Your task to perform on an android device: make emails show in primary in the gmail app Image 0: 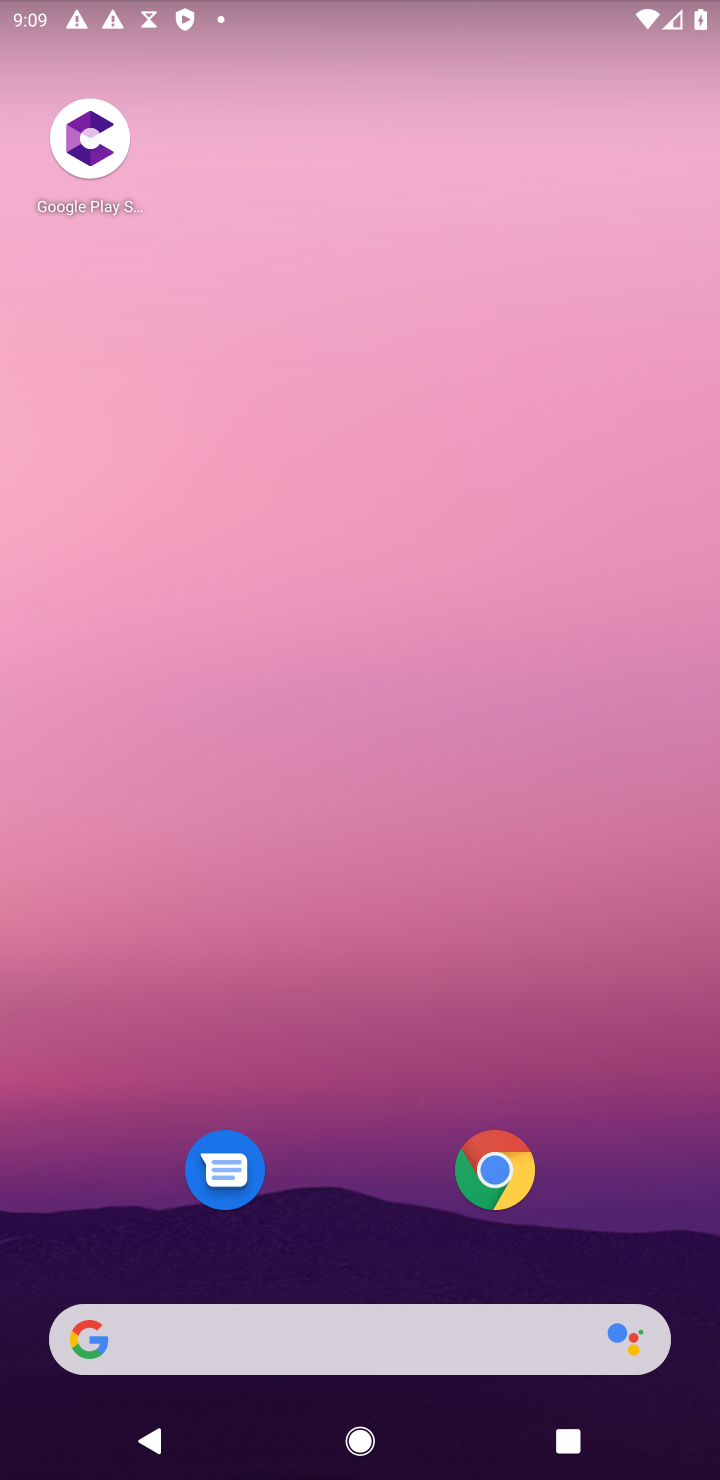
Step 0: drag from (383, 1232) to (337, 223)
Your task to perform on an android device: make emails show in primary in the gmail app Image 1: 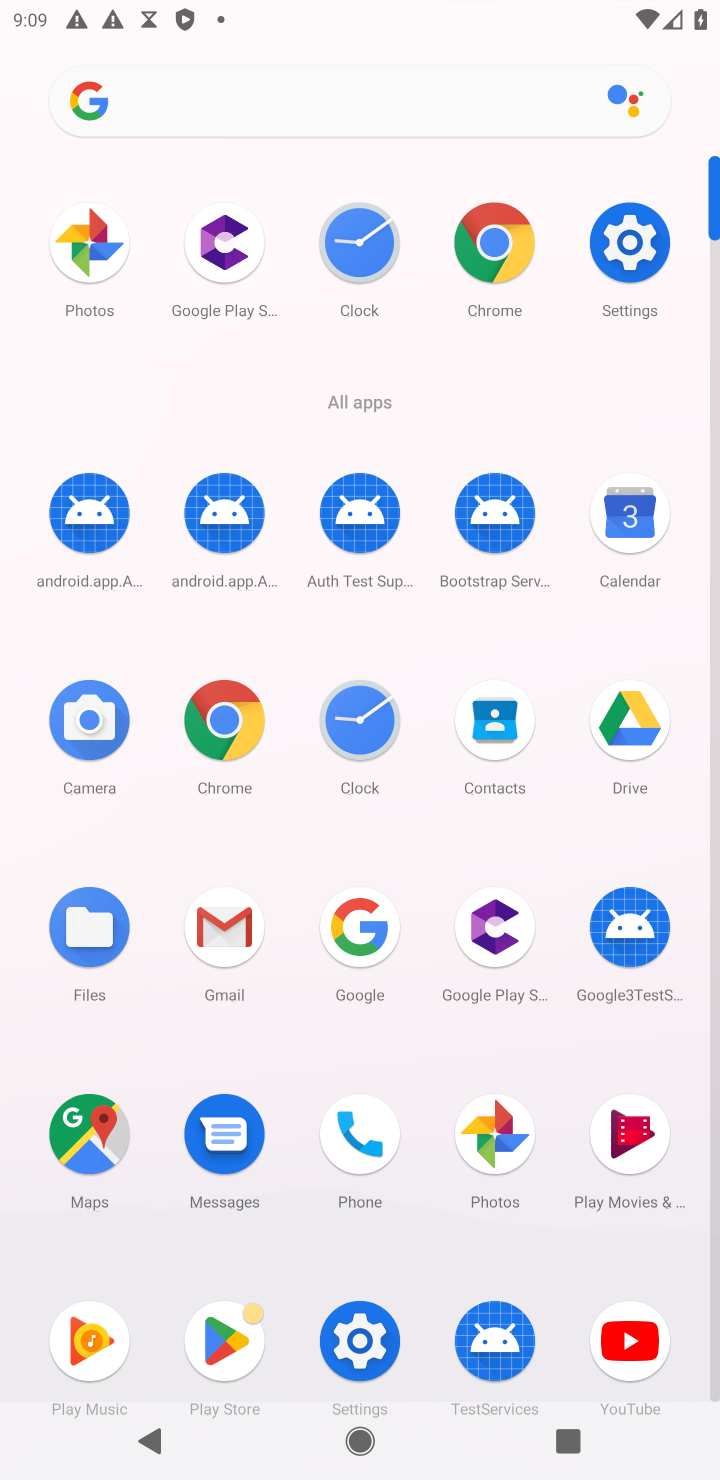
Step 1: click (234, 948)
Your task to perform on an android device: make emails show in primary in the gmail app Image 2: 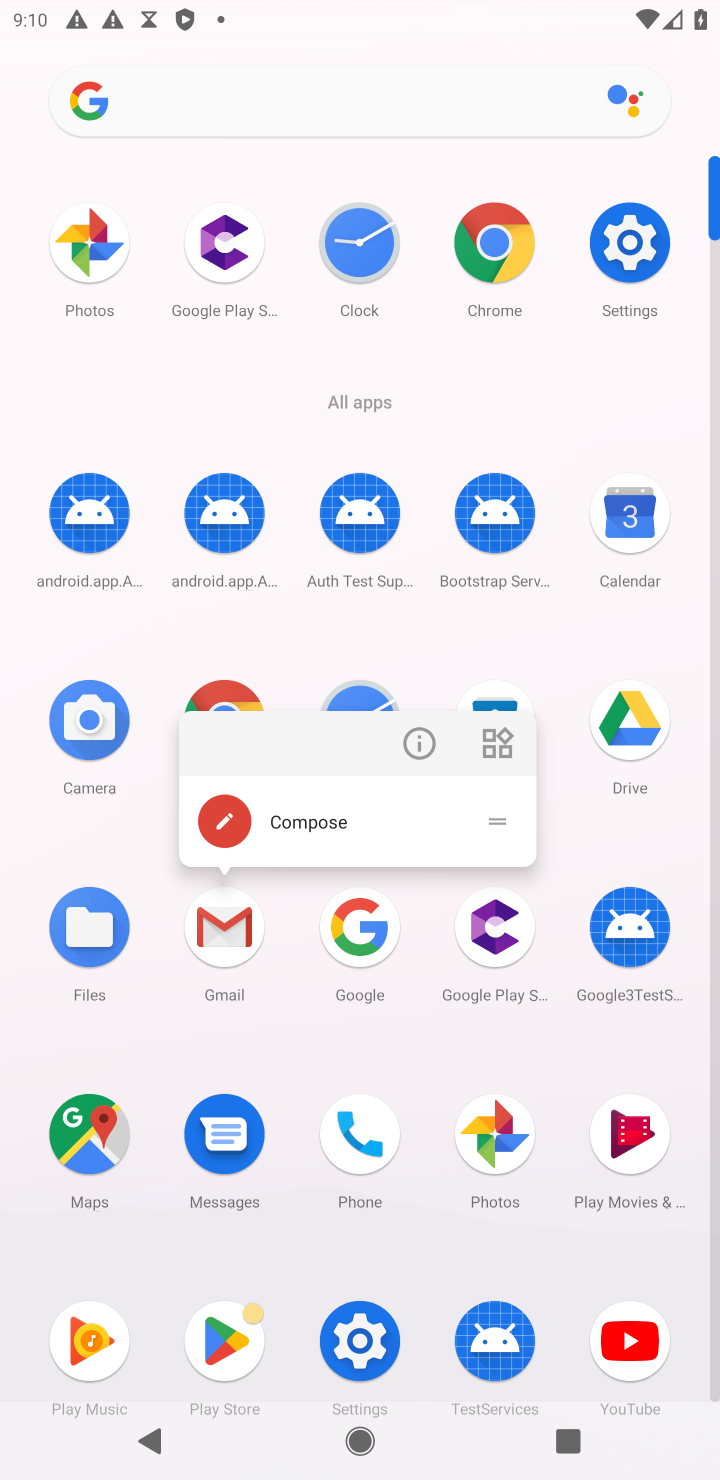
Step 2: click (234, 948)
Your task to perform on an android device: make emails show in primary in the gmail app Image 3: 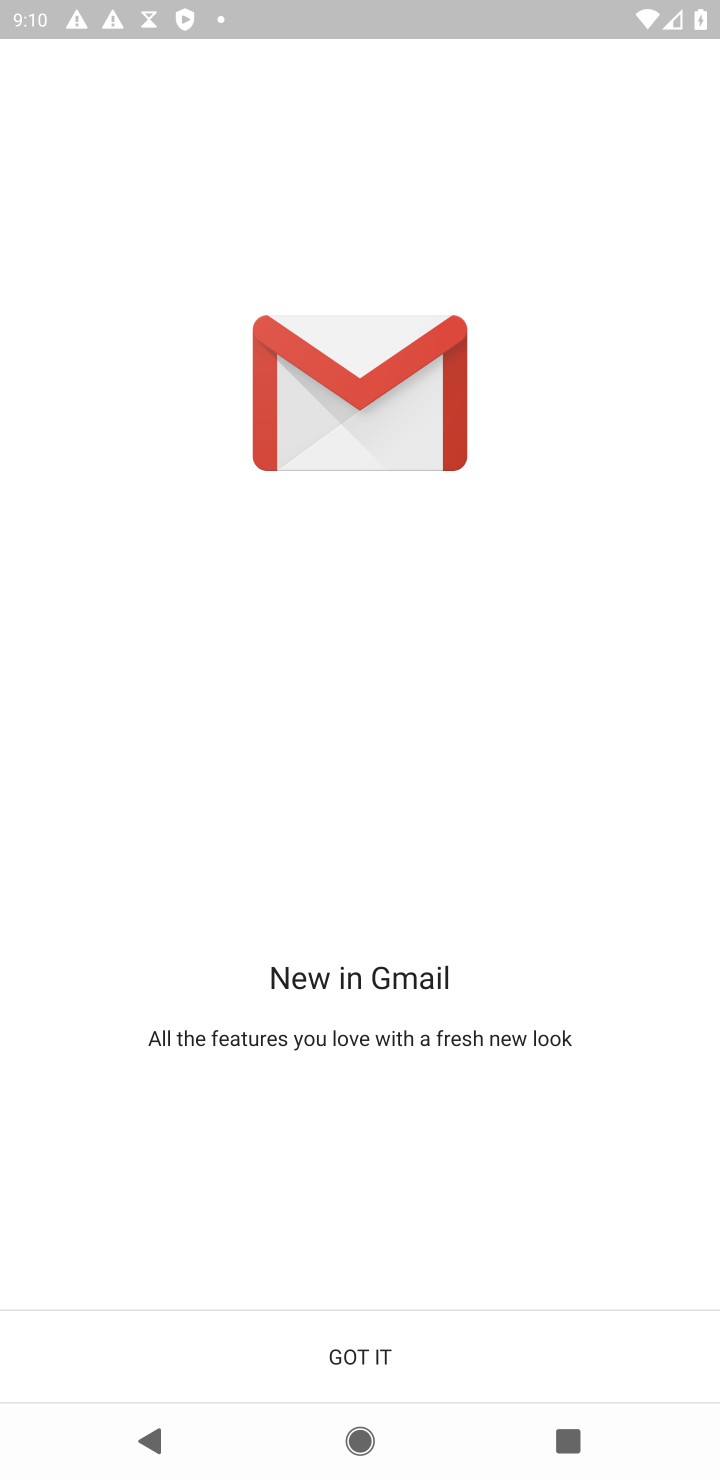
Step 3: click (391, 1382)
Your task to perform on an android device: make emails show in primary in the gmail app Image 4: 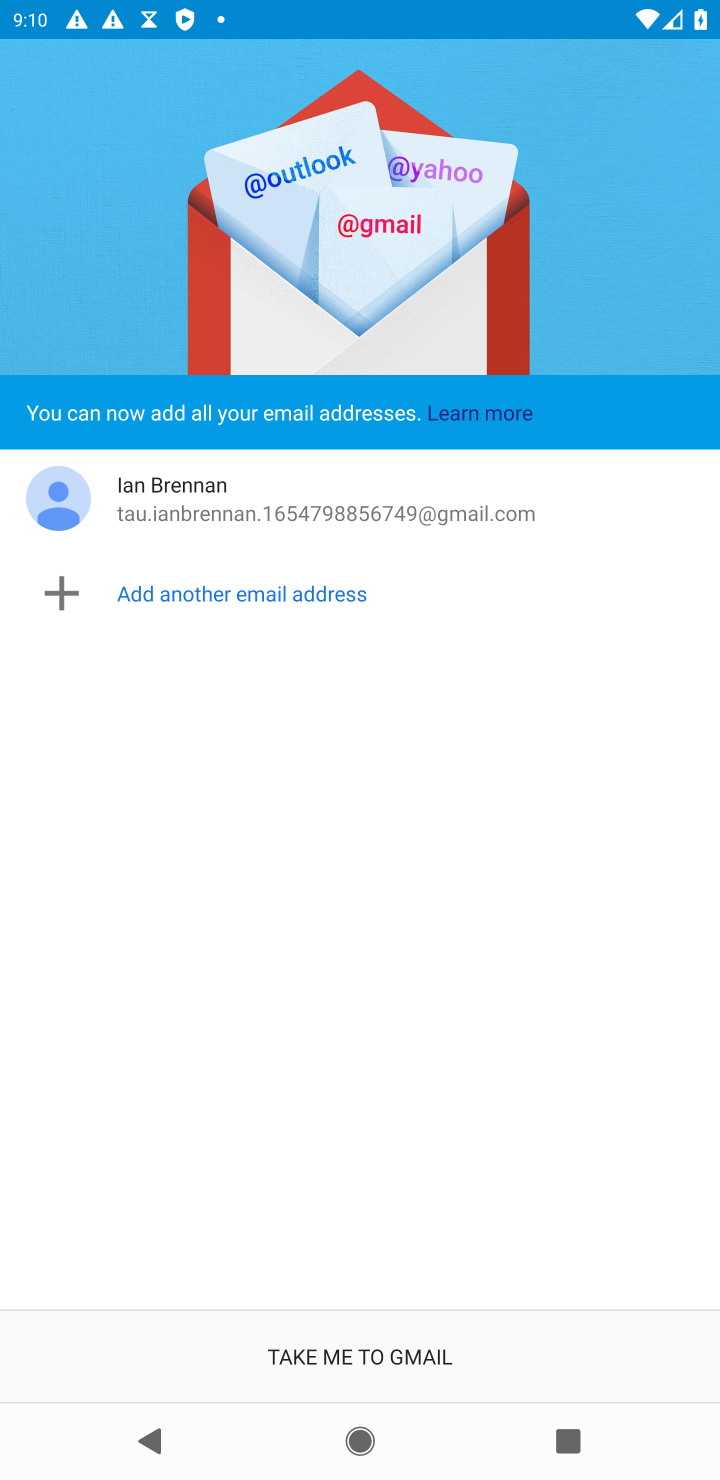
Step 4: click (394, 1383)
Your task to perform on an android device: make emails show in primary in the gmail app Image 5: 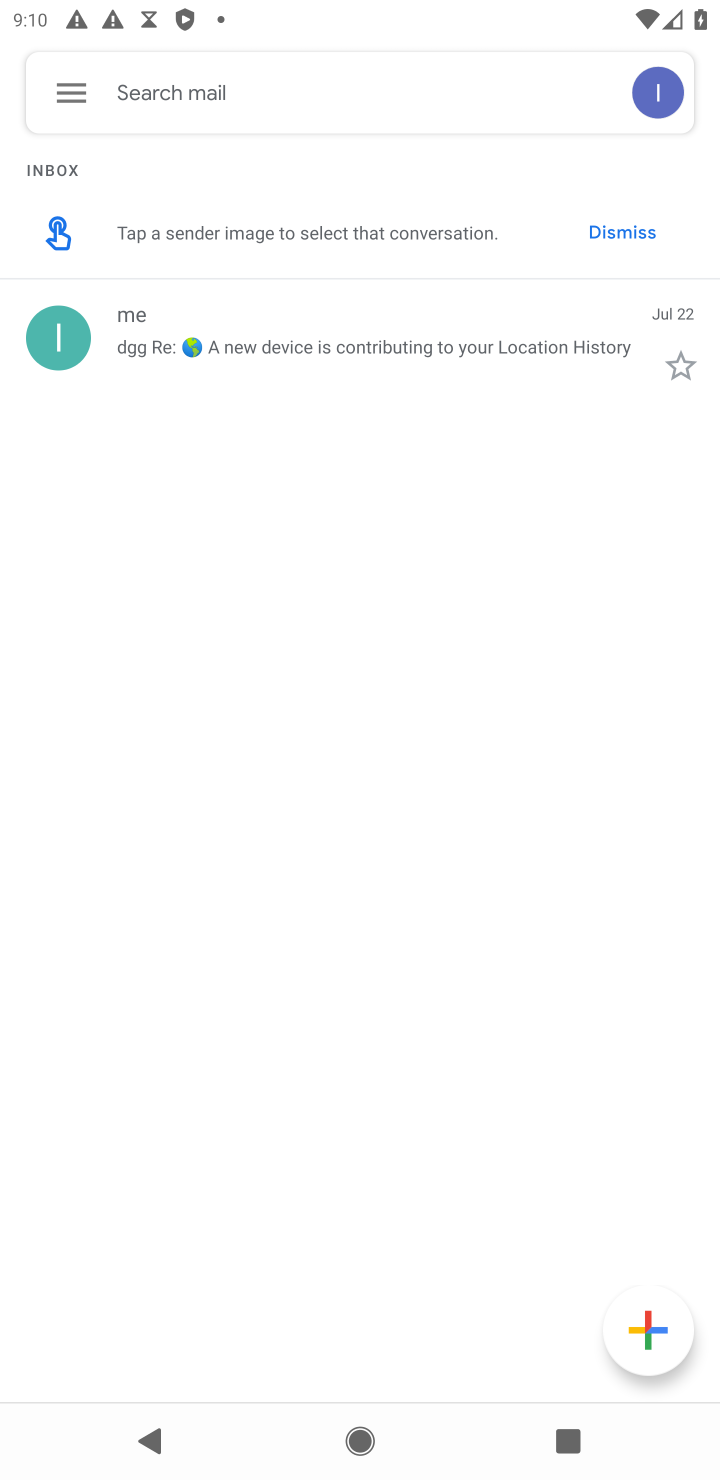
Step 5: click (60, 111)
Your task to perform on an android device: make emails show in primary in the gmail app Image 6: 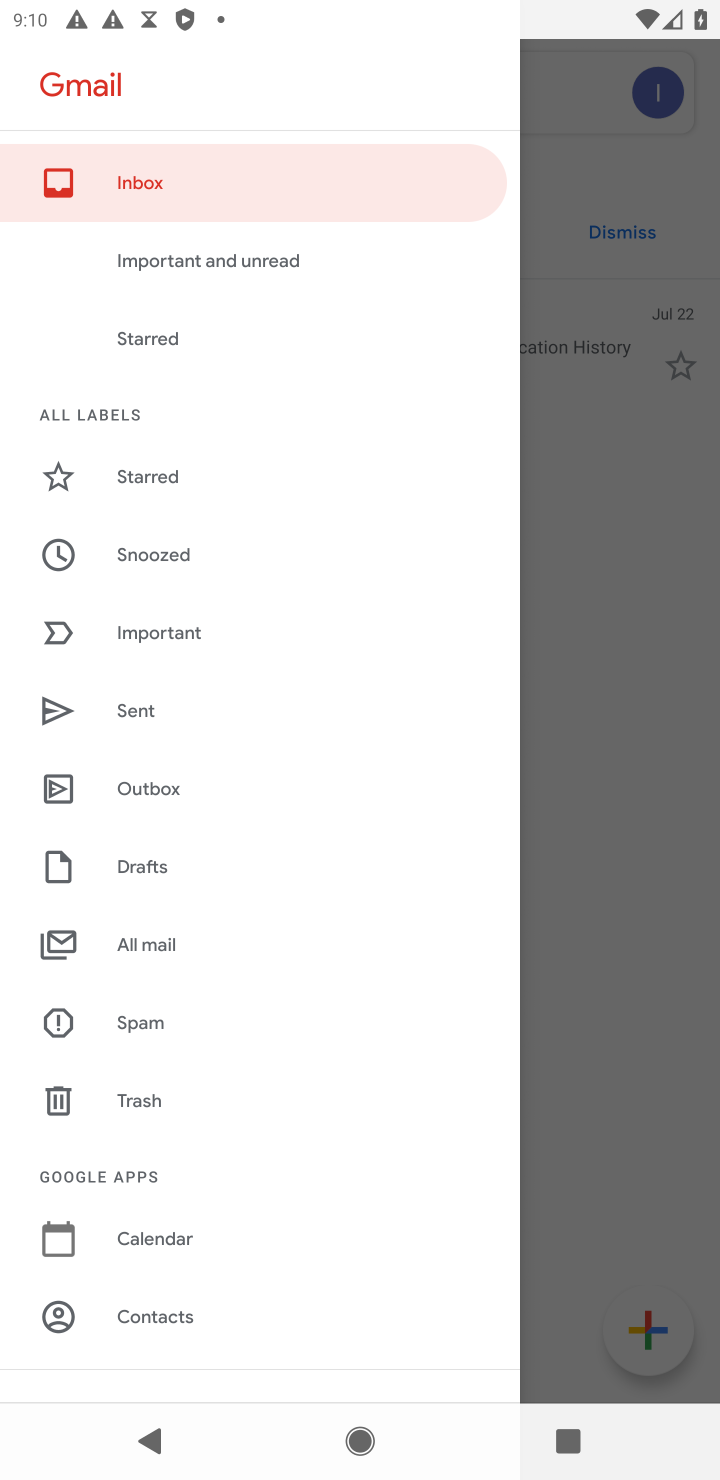
Step 6: drag from (296, 1316) to (230, 679)
Your task to perform on an android device: make emails show in primary in the gmail app Image 7: 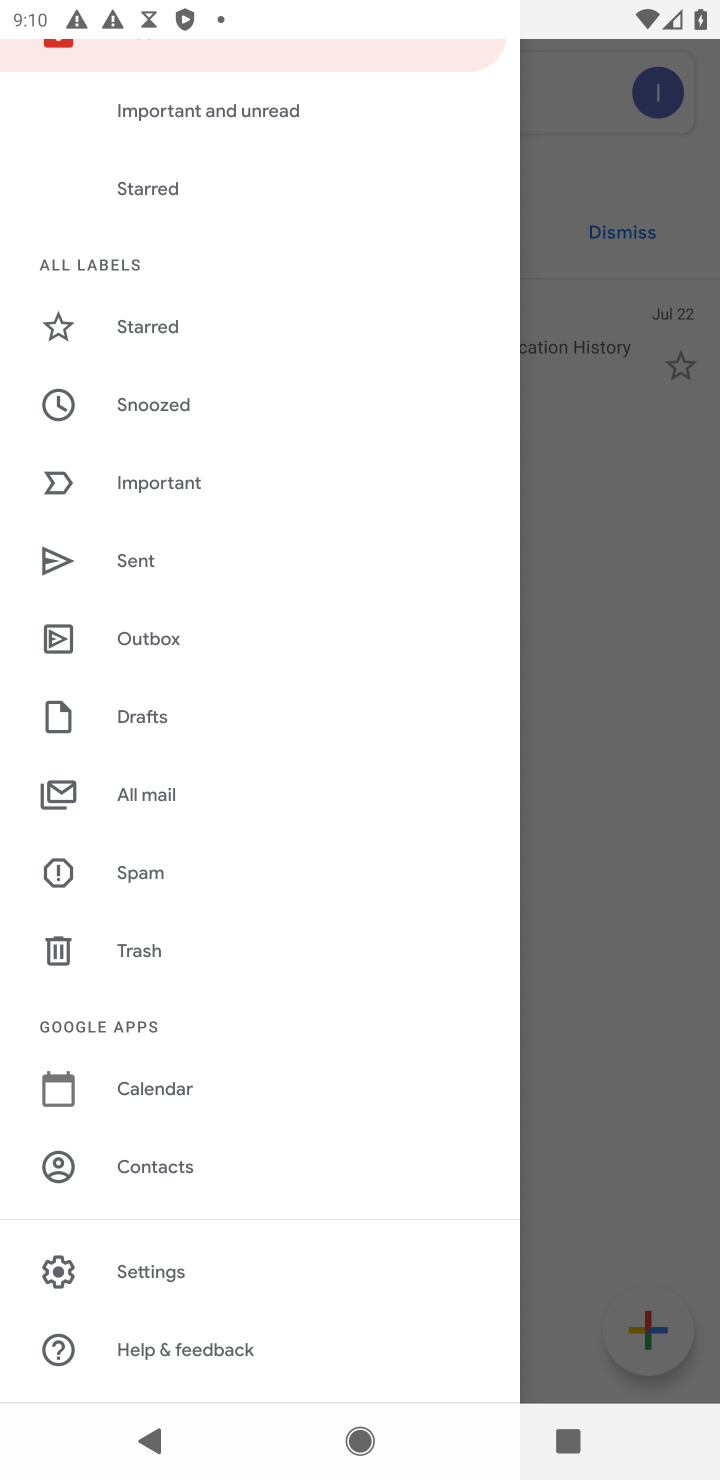
Step 7: click (216, 1263)
Your task to perform on an android device: make emails show in primary in the gmail app Image 8: 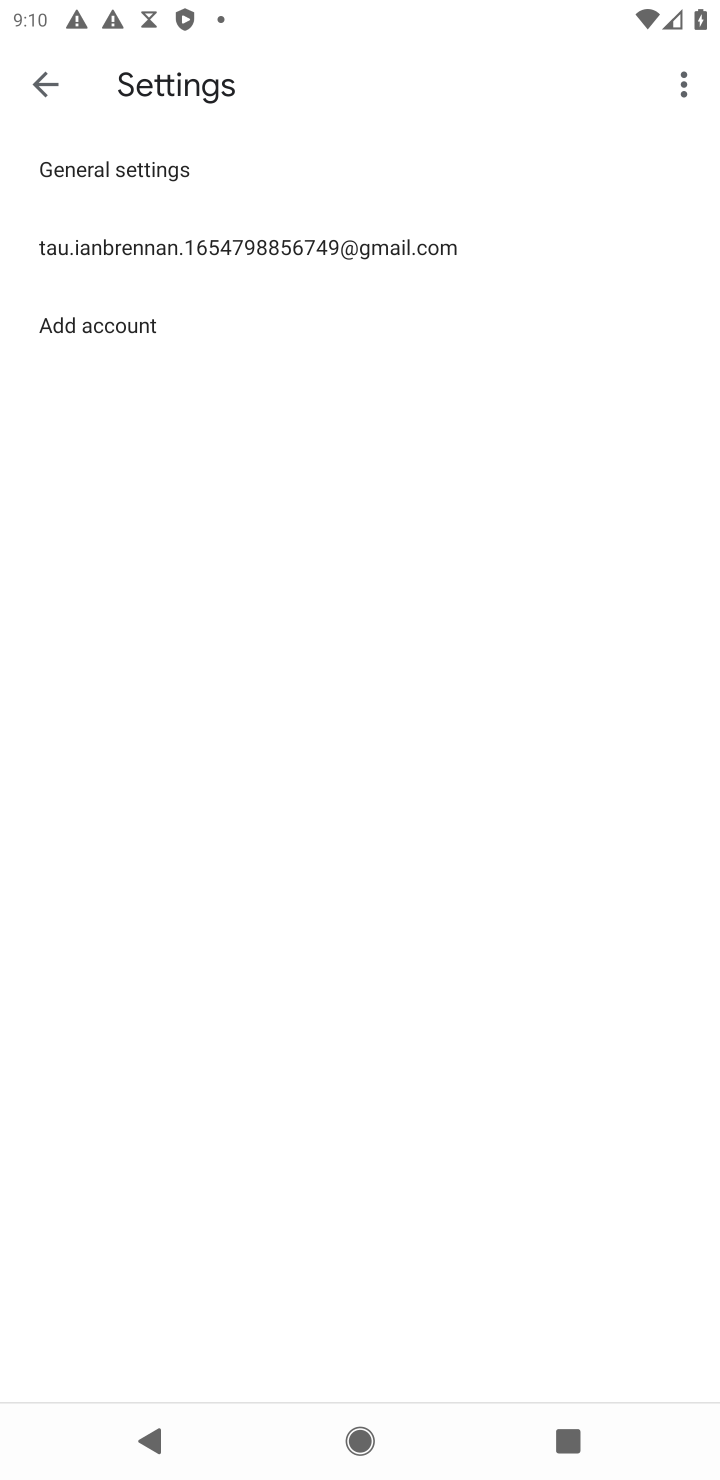
Step 8: click (225, 255)
Your task to perform on an android device: make emails show in primary in the gmail app Image 9: 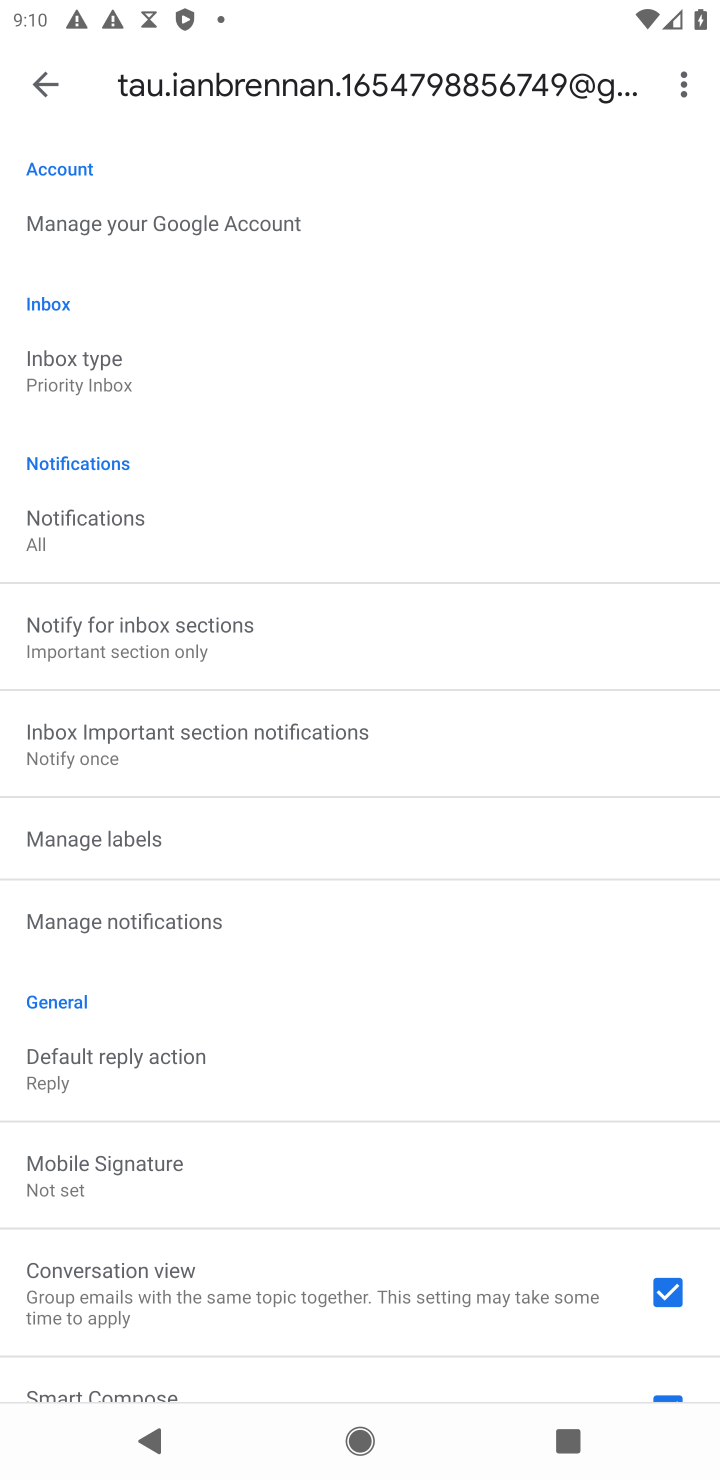
Step 9: click (260, 377)
Your task to perform on an android device: make emails show in primary in the gmail app Image 10: 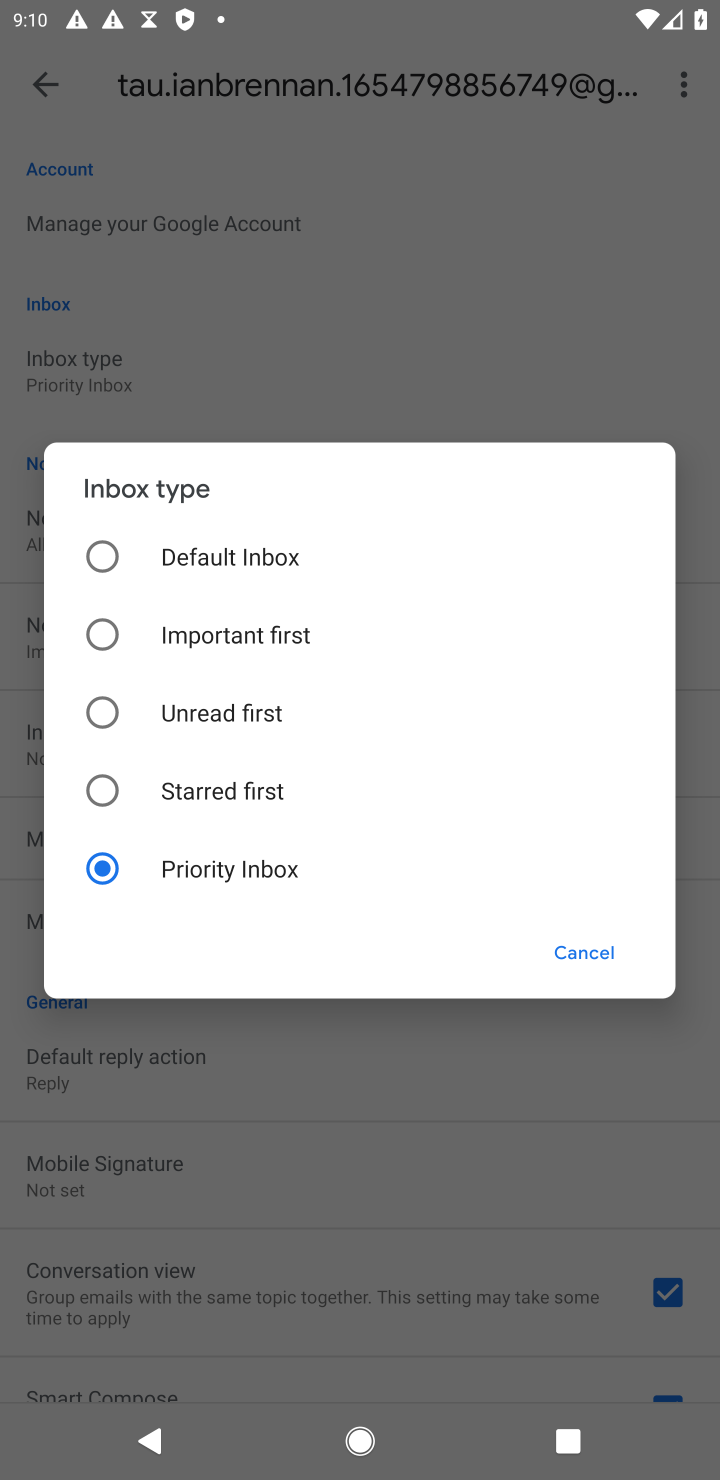
Step 10: click (268, 553)
Your task to perform on an android device: make emails show in primary in the gmail app Image 11: 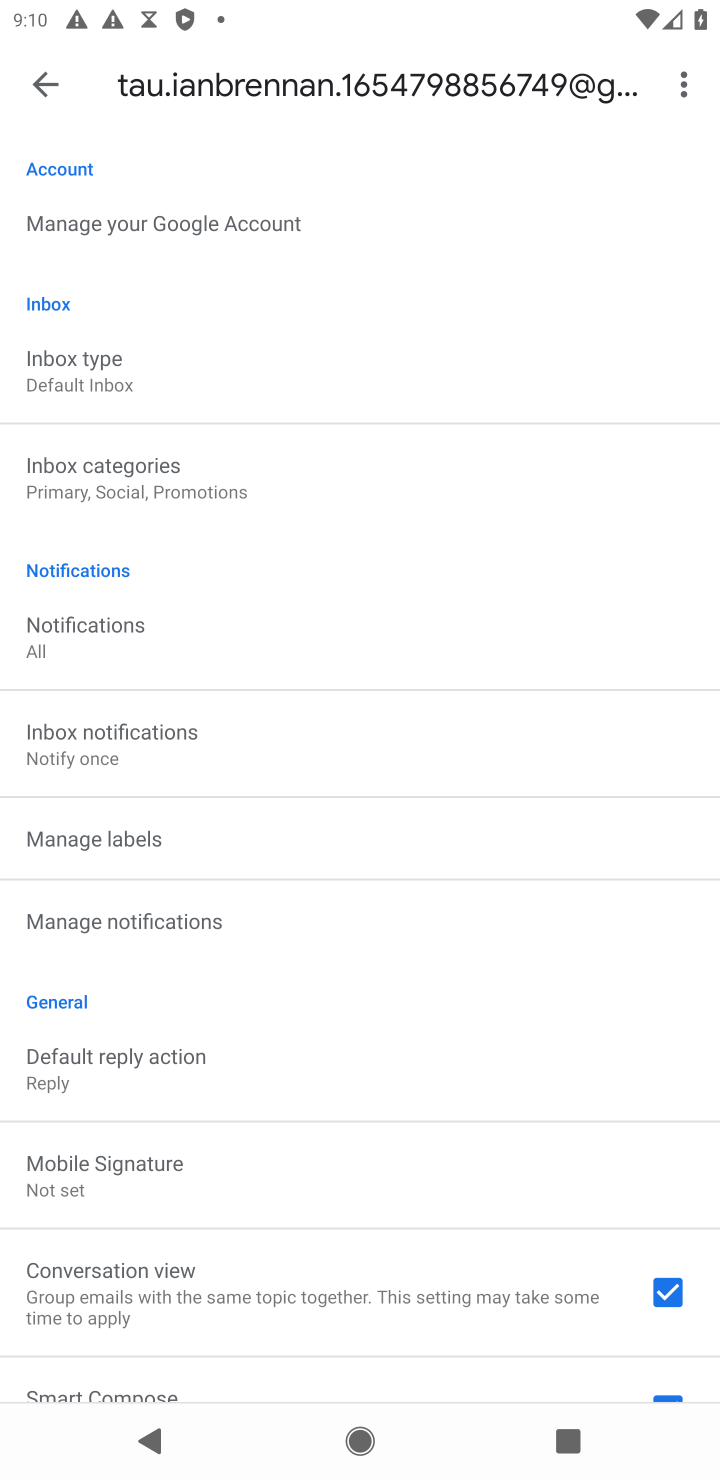
Step 11: task complete